Your task to perform on an android device: turn off translation in the chrome app Image 0: 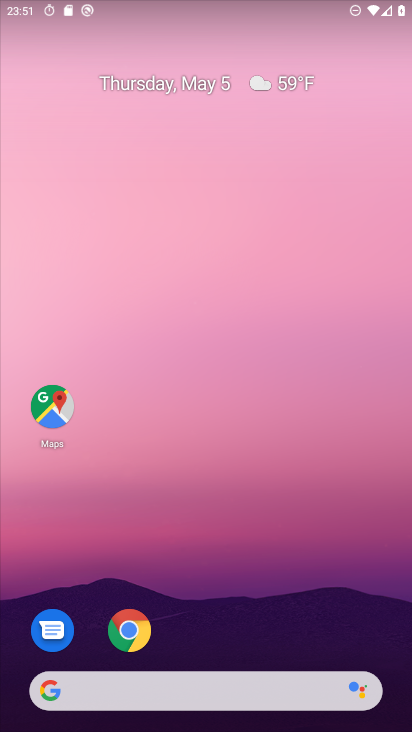
Step 0: click (138, 634)
Your task to perform on an android device: turn off translation in the chrome app Image 1: 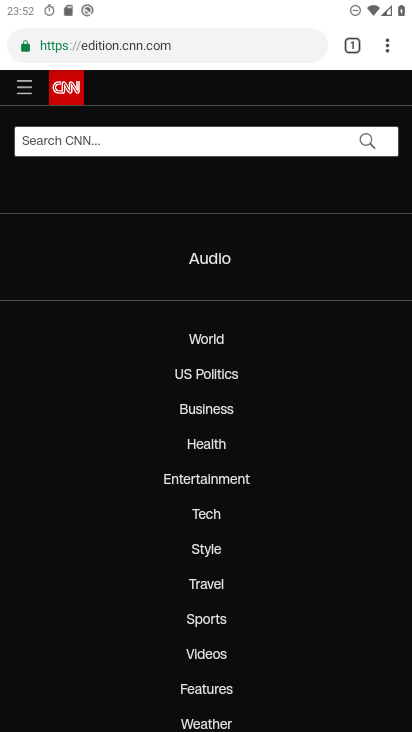
Step 1: click (391, 50)
Your task to perform on an android device: turn off translation in the chrome app Image 2: 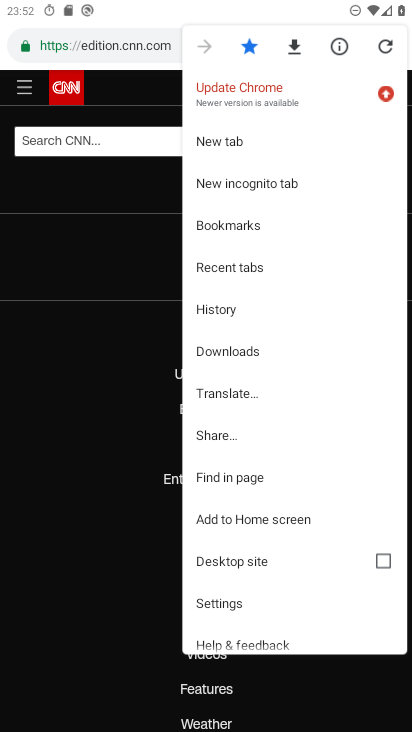
Step 2: click (231, 598)
Your task to perform on an android device: turn off translation in the chrome app Image 3: 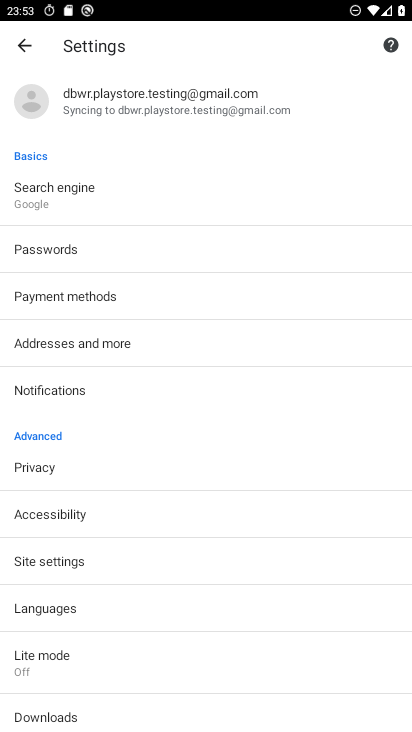
Step 3: click (73, 622)
Your task to perform on an android device: turn off translation in the chrome app Image 4: 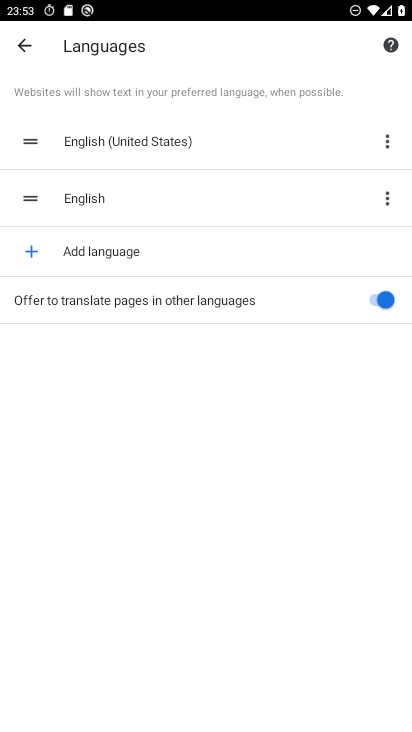
Step 4: click (231, 289)
Your task to perform on an android device: turn off translation in the chrome app Image 5: 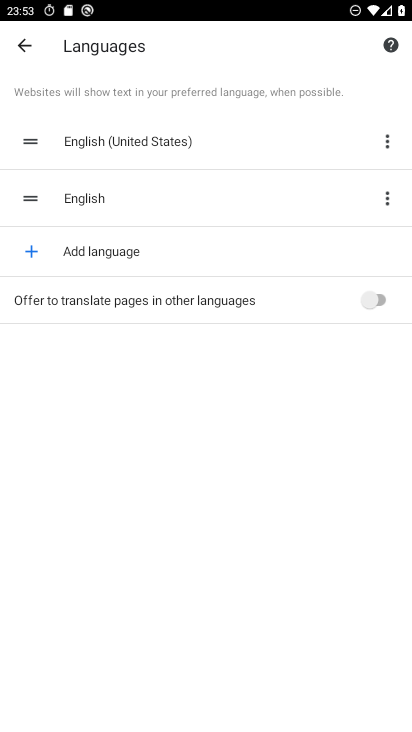
Step 5: task complete